Your task to perform on an android device: Open calendar and show me the second week of next month Image 0: 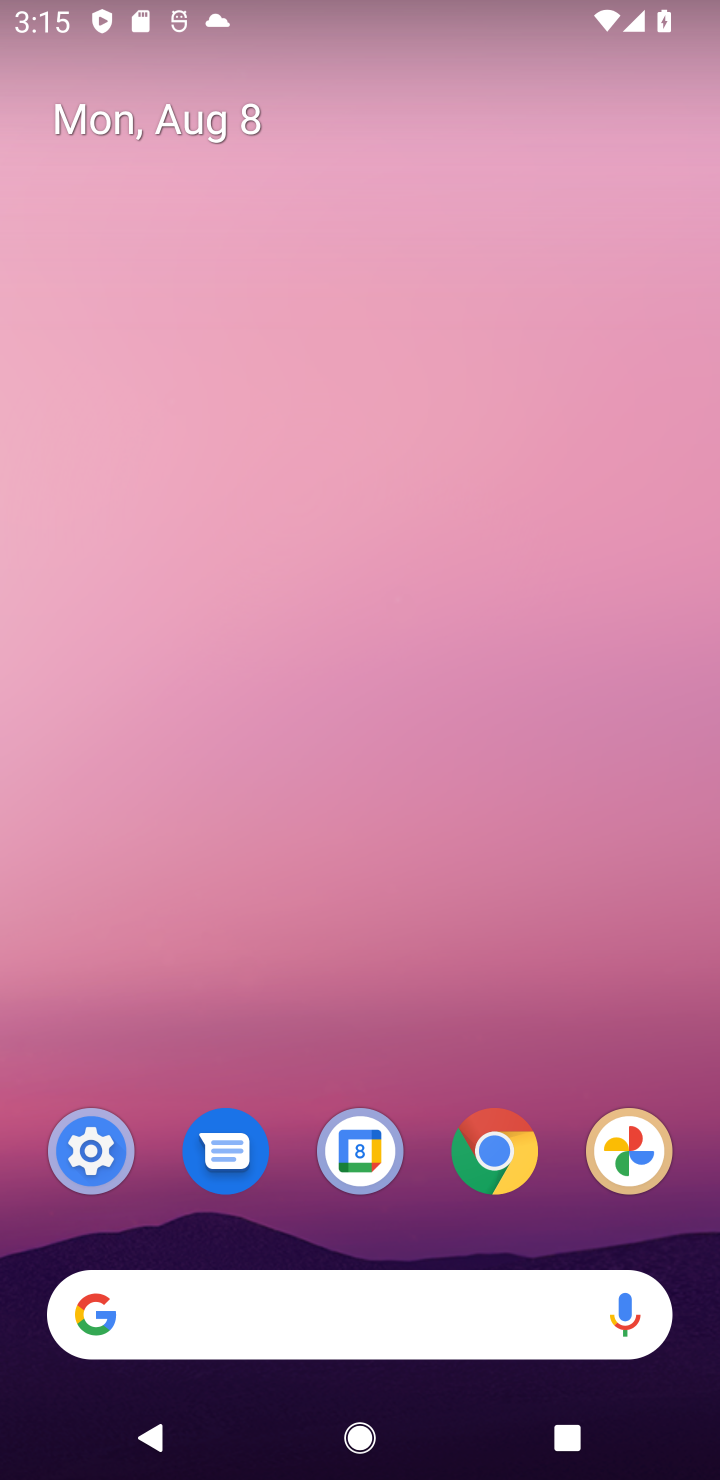
Step 0: click (342, 1146)
Your task to perform on an android device: Open calendar and show me the second week of next month Image 1: 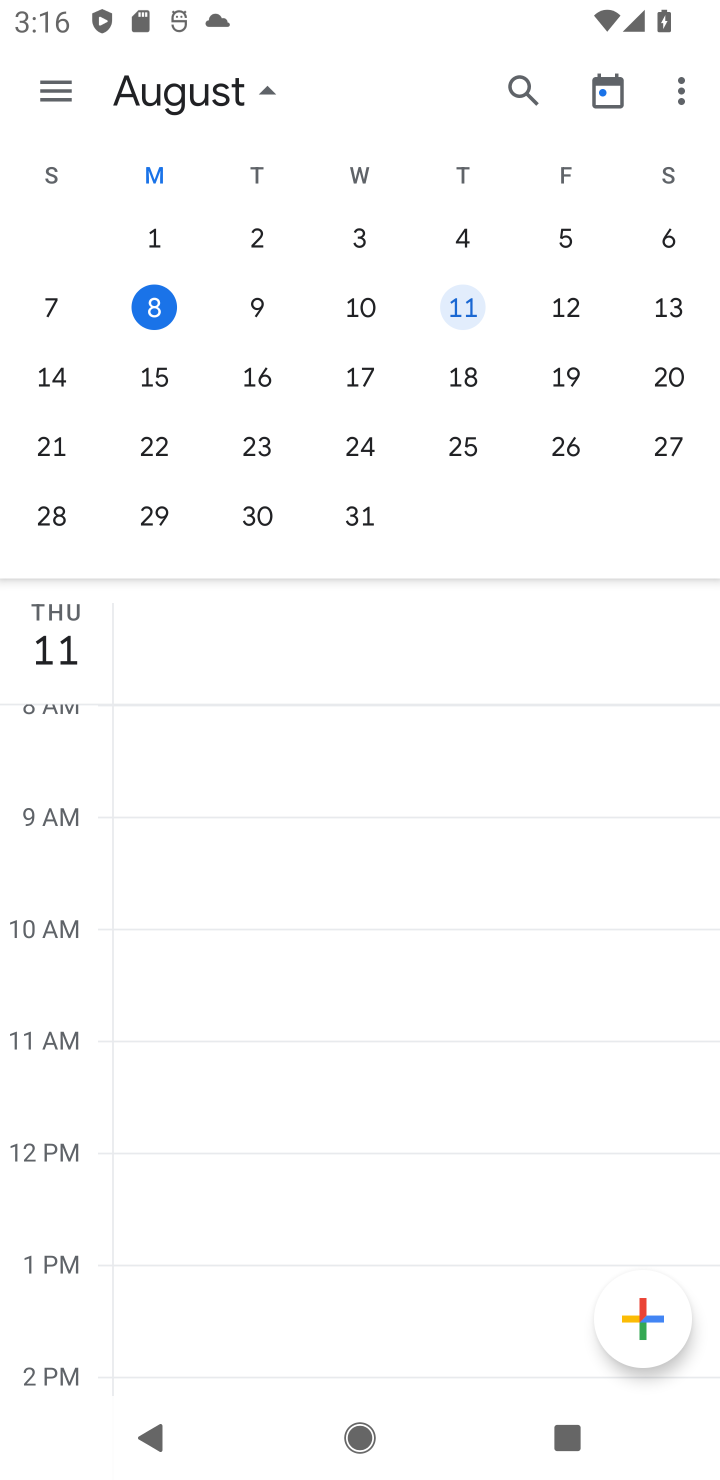
Step 1: drag from (603, 346) to (104, 330)
Your task to perform on an android device: Open calendar and show me the second week of next month Image 2: 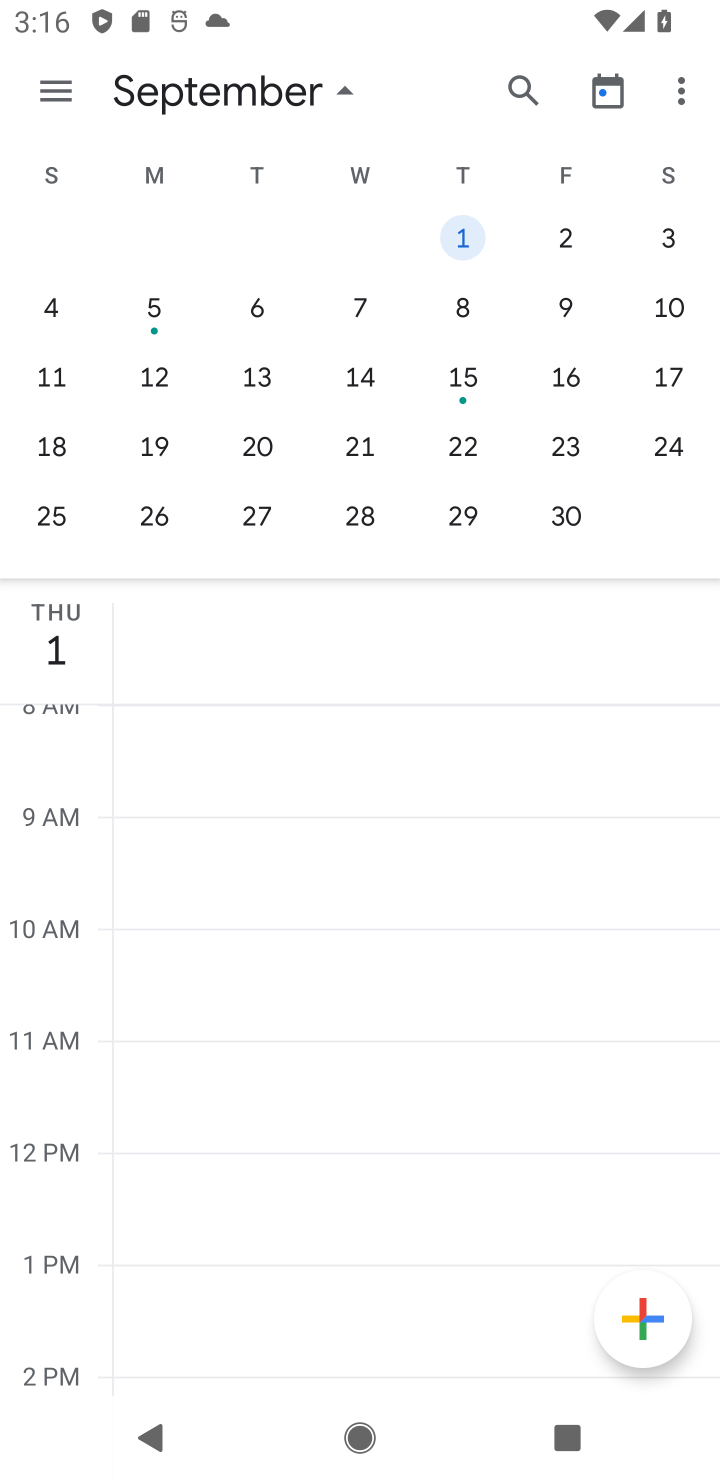
Step 2: click (65, 313)
Your task to perform on an android device: Open calendar and show me the second week of next month Image 3: 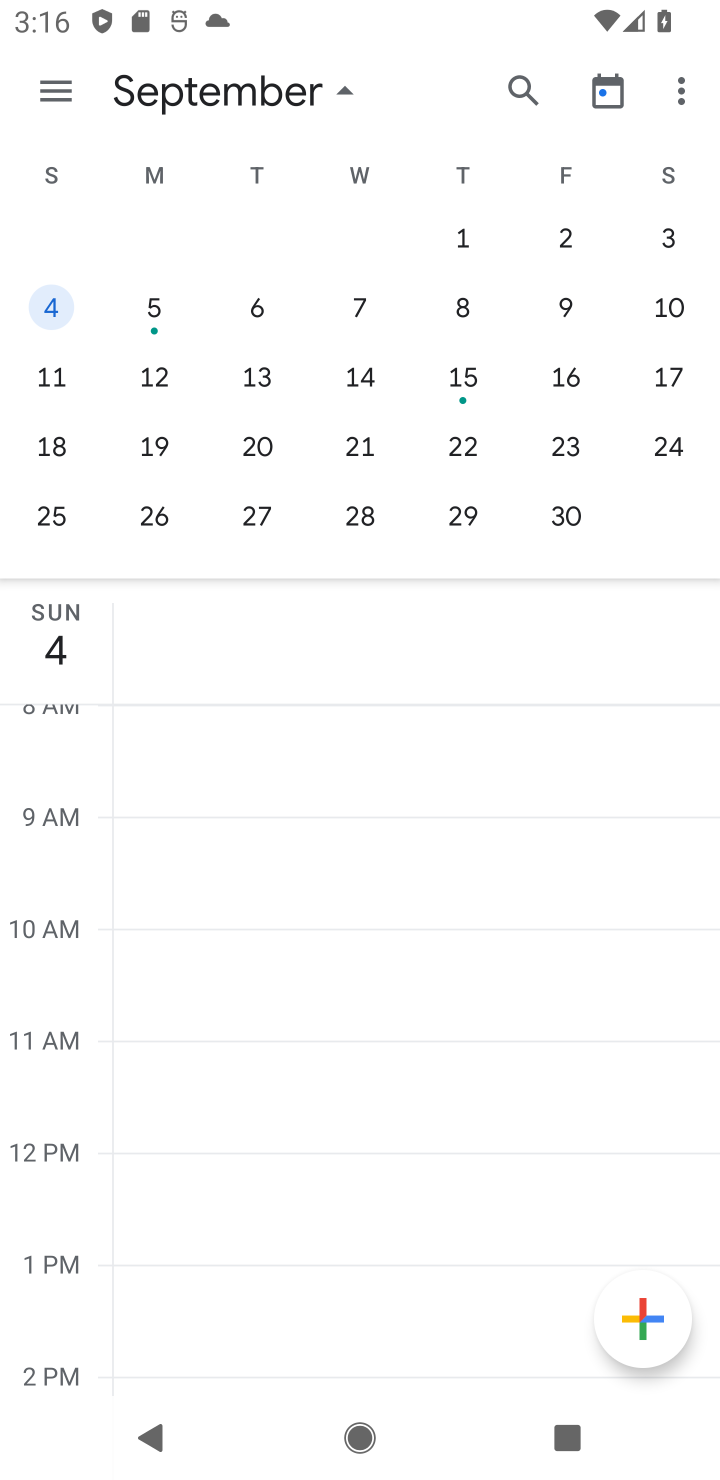
Step 3: task complete